Your task to perform on an android device: What's the weather going to be this weekend? Image 0: 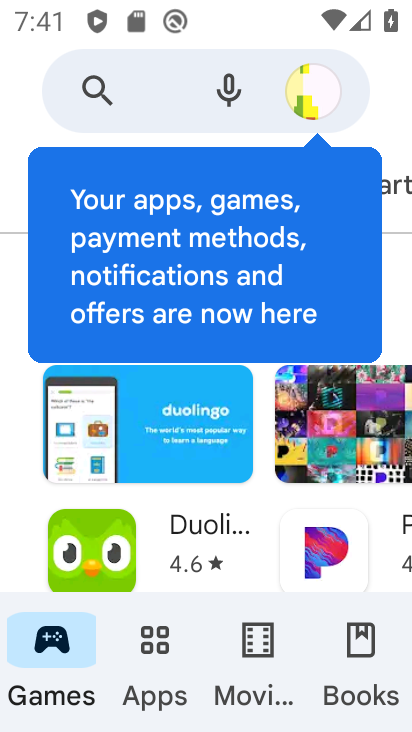
Step 0: press home button
Your task to perform on an android device: What's the weather going to be this weekend? Image 1: 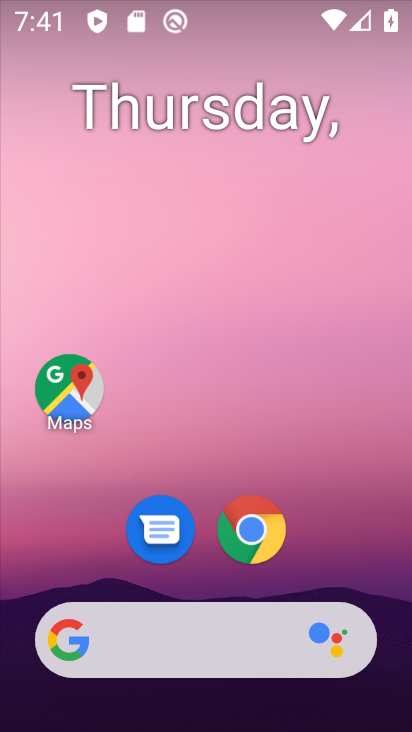
Step 1: click (204, 641)
Your task to perform on an android device: What's the weather going to be this weekend? Image 2: 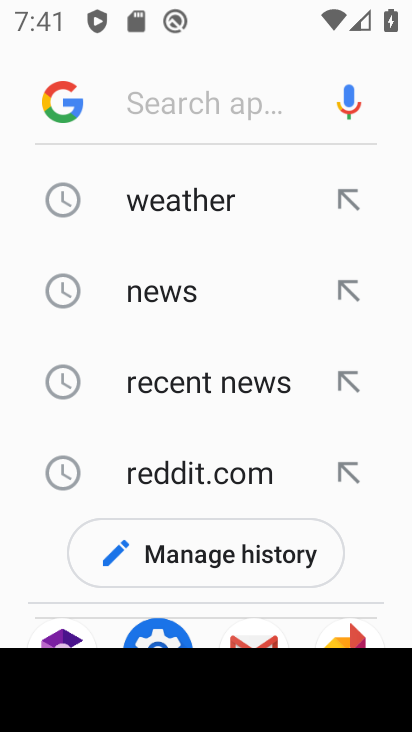
Step 2: click (178, 211)
Your task to perform on an android device: What's the weather going to be this weekend? Image 3: 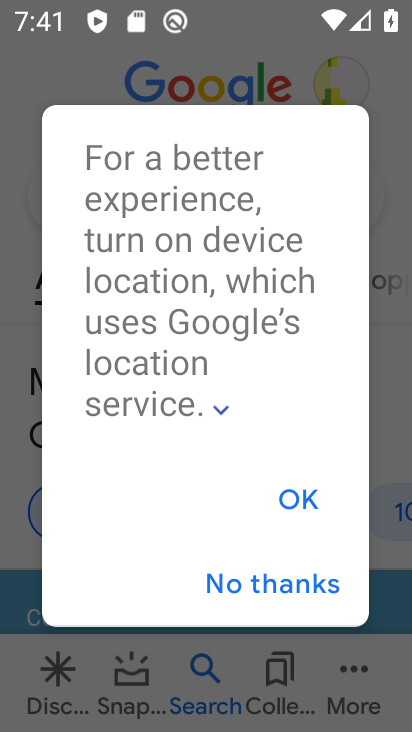
Step 3: click (292, 593)
Your task to perform on an android device: What's the weather going to be this weekend? Image 4: 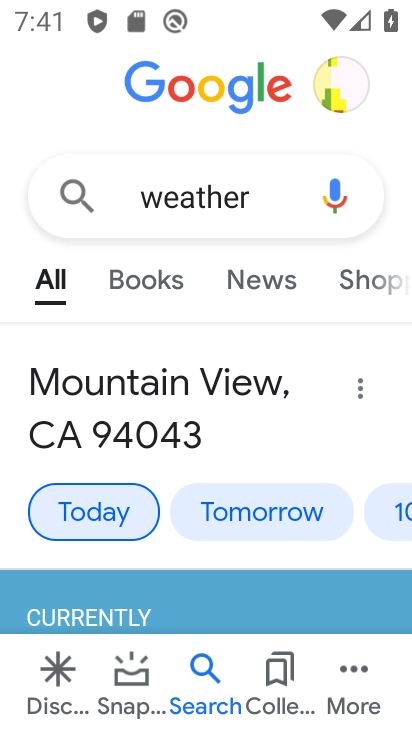
Step 4: task complete